Your task to perform on an android device: see sites visited before in the chrome app Image 0: 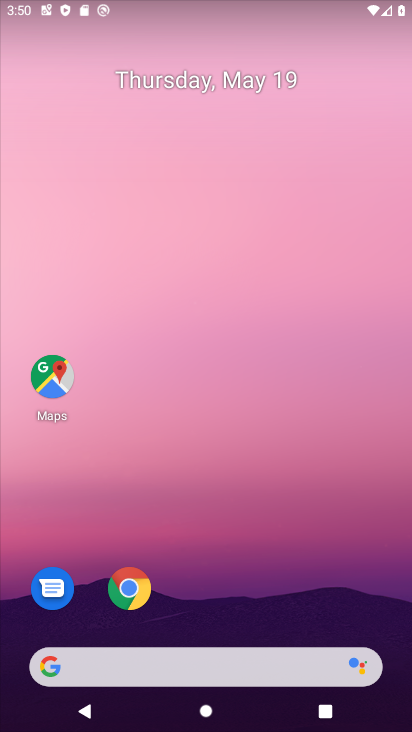
Step 0: click (126, 588)
Your task to perform on an android device: see sites visited before in the chrome app Image 1: 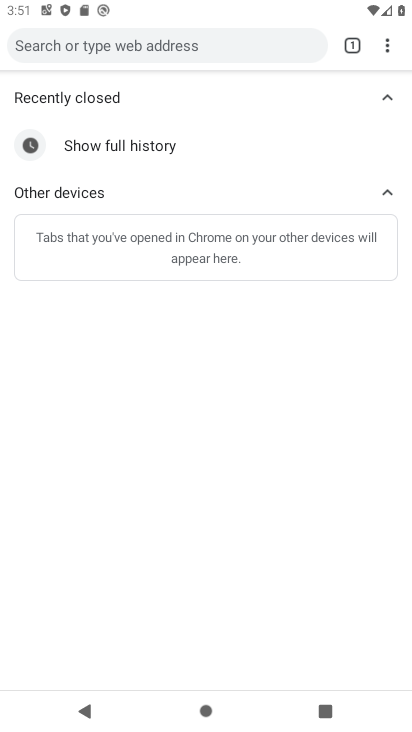
Step 1: click (398, 42)
Your task to perform on an android device: see sites visited before in the chrome app Image 2: 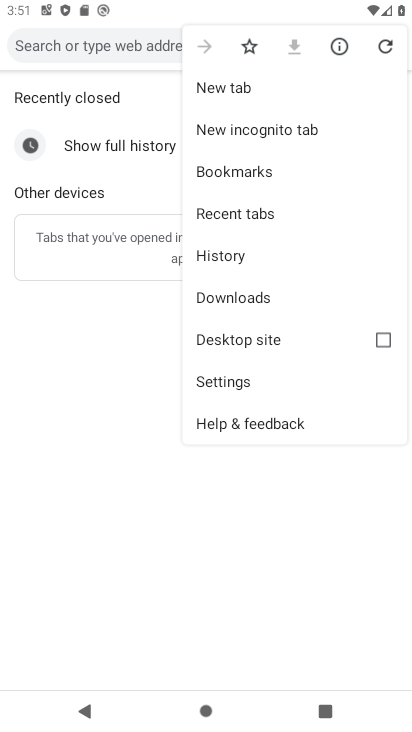
Step 2: click (221, 256)
Your task to perform on an android device: see sites visited before in the chrome app Image 3: 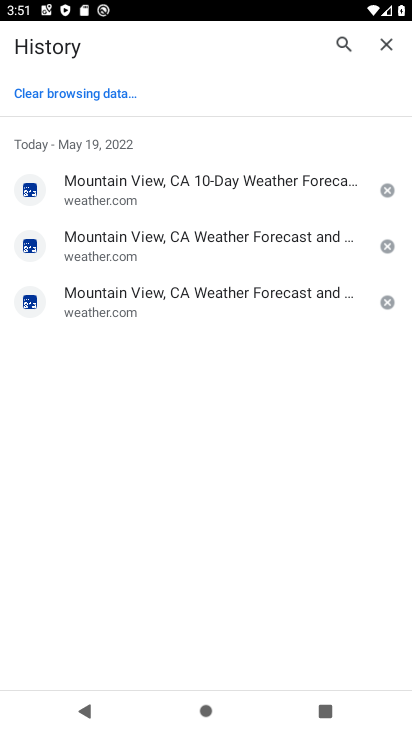
Step 3: task complete